Your task to perform on an android device: check the backup settings in the google photos Image 0: 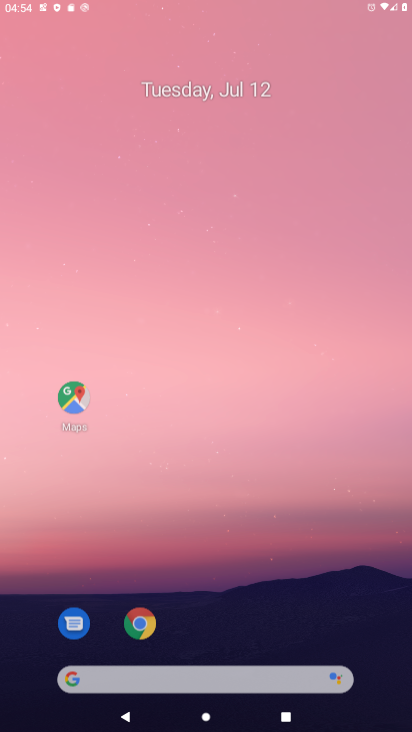
Step 0: press home button
Your task to perform on an android device: check the backup settings in the google photos Image 1: 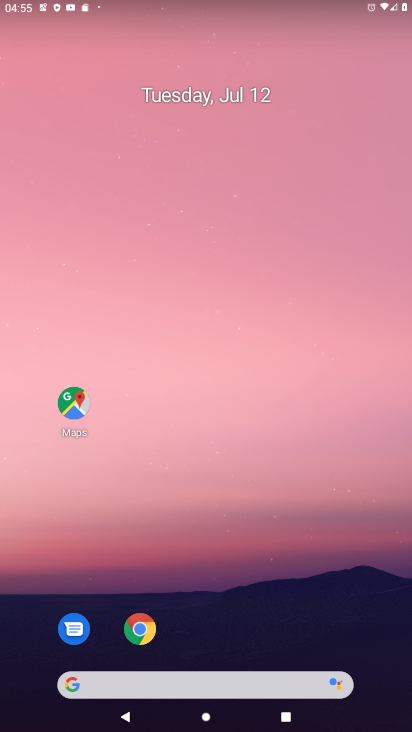
Step 1: drag from (265, 632) to (329, 170)
Your task to perform on an android device: check the backup settings in the google photos Image 2: 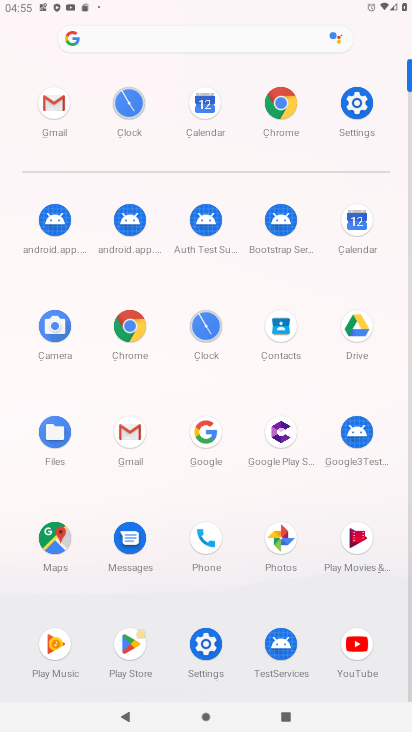
Step 2: drag from (228, 623) to (269, 228)
Your task to perform on an android device: check the backup settings in the google photos Image 3: 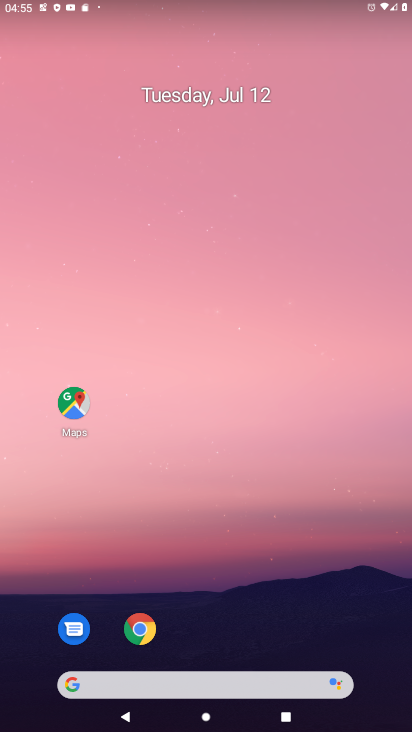
Step 3: drag from (240, 611) to (292, 111)
Your task to perform on an android device: check the backup settings in the google photos Image 4: 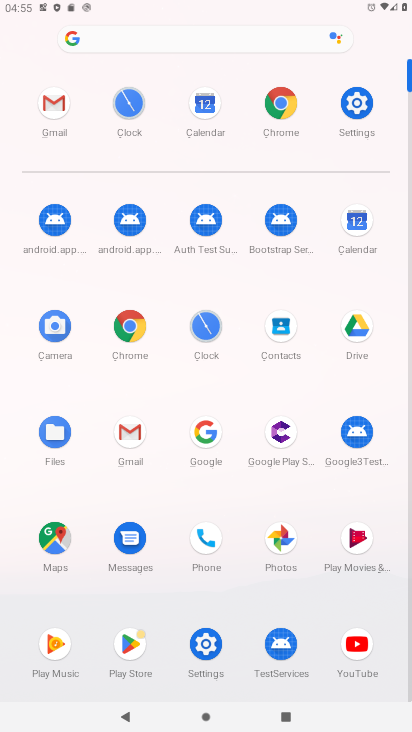
Step 4: click (286, 539)
Your task to perform on an android device: check the backup settings in the google photos Image 5: 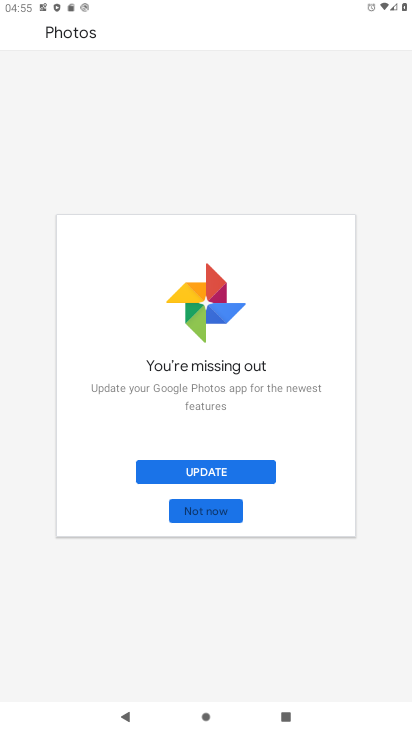
Step 5: click (329, 385)
Your task to perform on an android device: check the backup settings in the google photos Image 6: 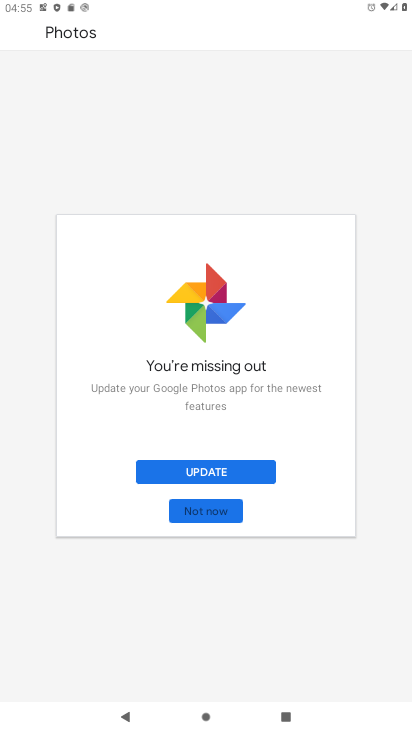
Step 6: click (186, 470)
Your task to perform on an android device: check the backup settings in the google photos Image 7: 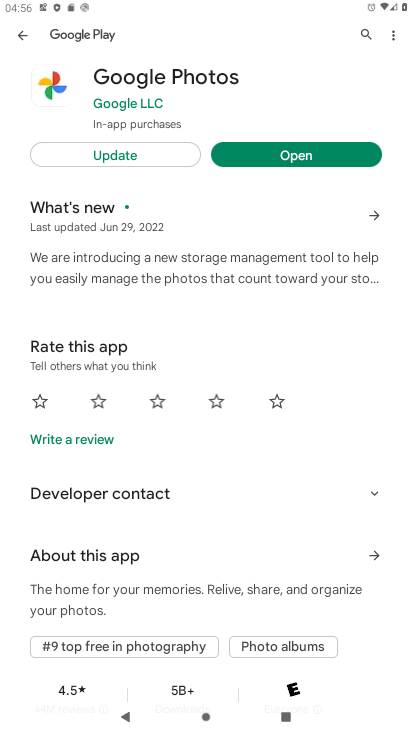
Step 7: click (122, 155)
Your task to perform on an android device: check the backup settings in the google photos Image 8: 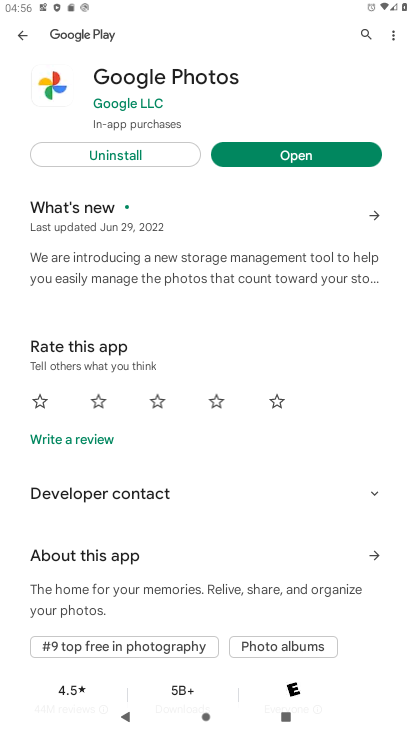
Step 8: click (254, 152)
Your task to perform on an android device: check the backup settings in the google photos Image 9: 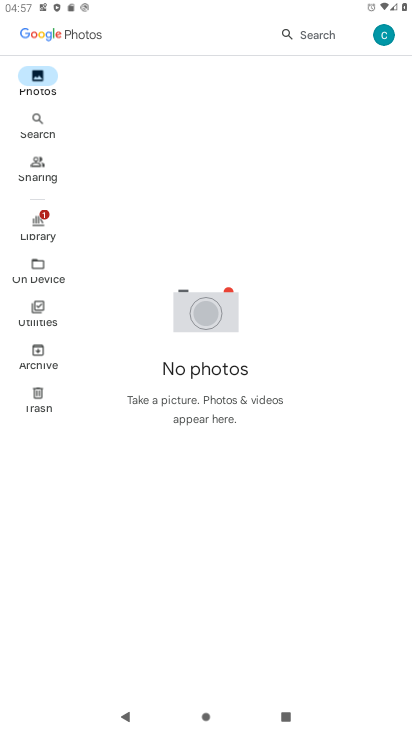
Step 9: click (385, 30)
Your task to perform on an android device: check the backup settings in the google photos Image 10: 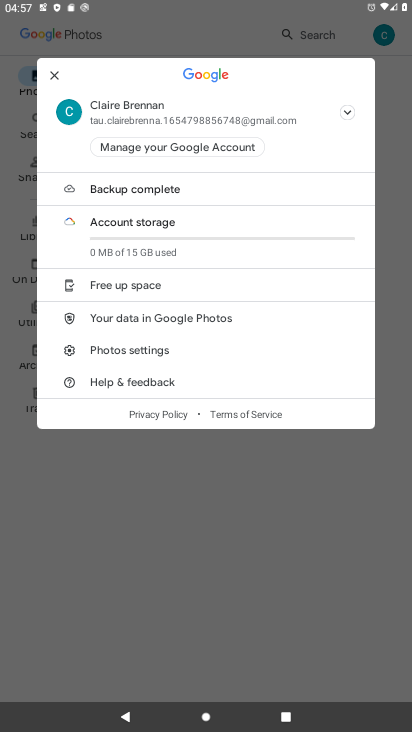
Step 10: click (136, 349)
Your task to perform on an android device: check the backup settings in the google photos Image 11: 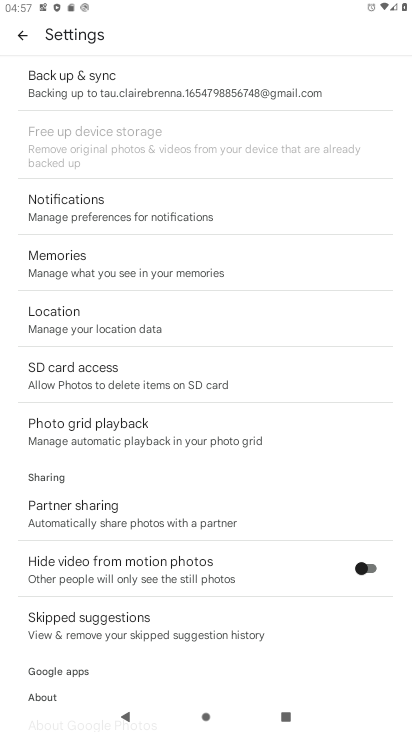
Step 11: click (82, 83)
Your task to perform on an android device: check the backup settings in the google photos Image 12: 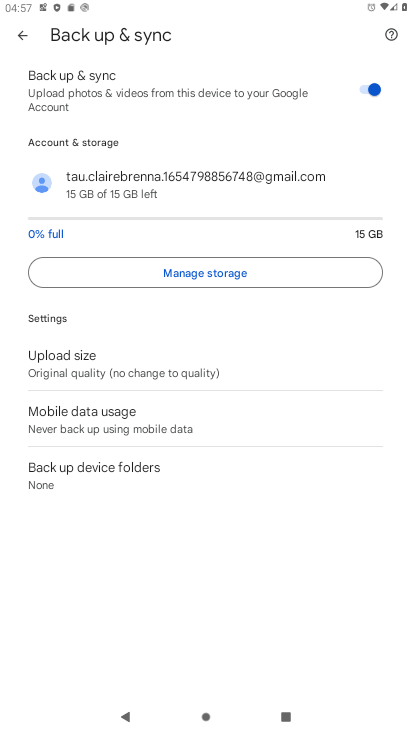
Step 12: task complete